Your task to perform on an android device: Open location settings Image 0: 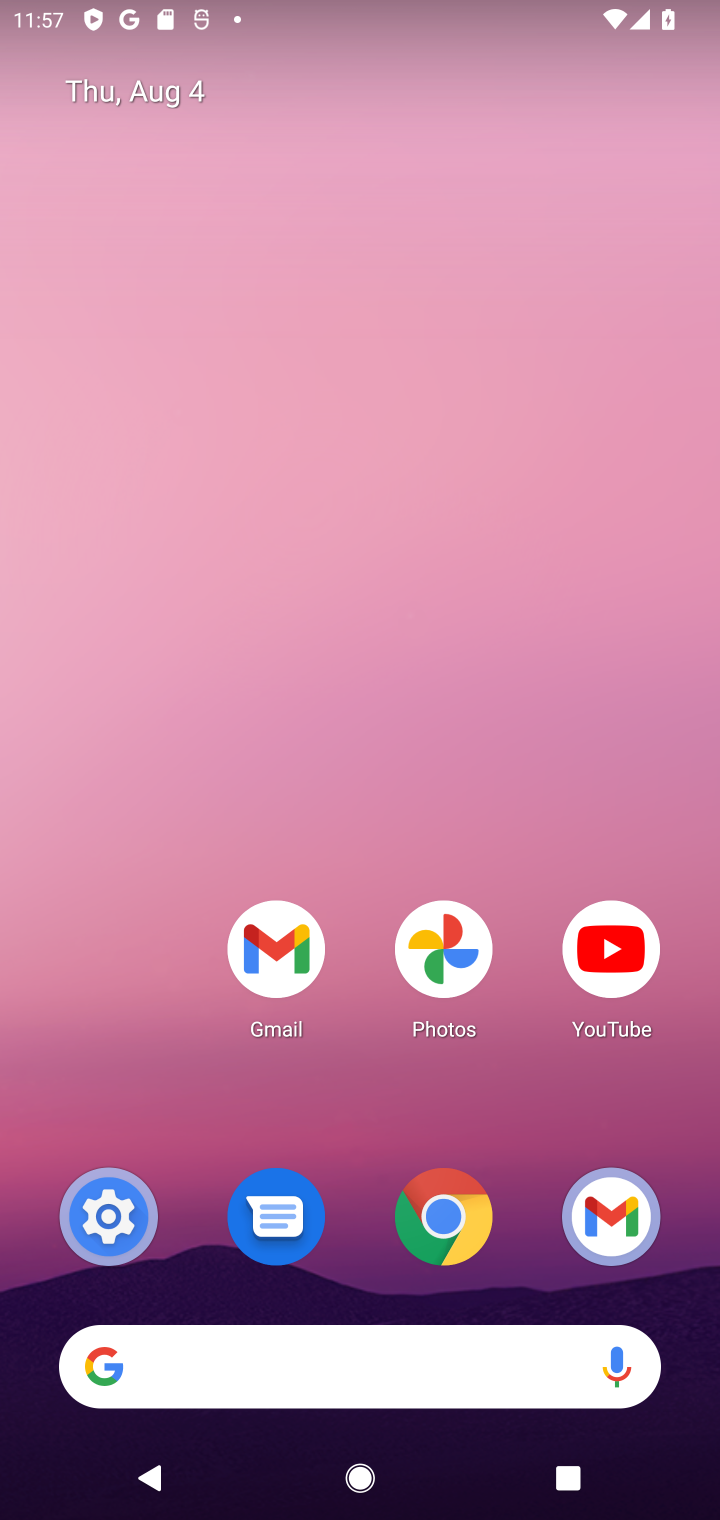
Step 0: click (112, 1219)
Your task to perform on an android device: Open location settings Image 1: 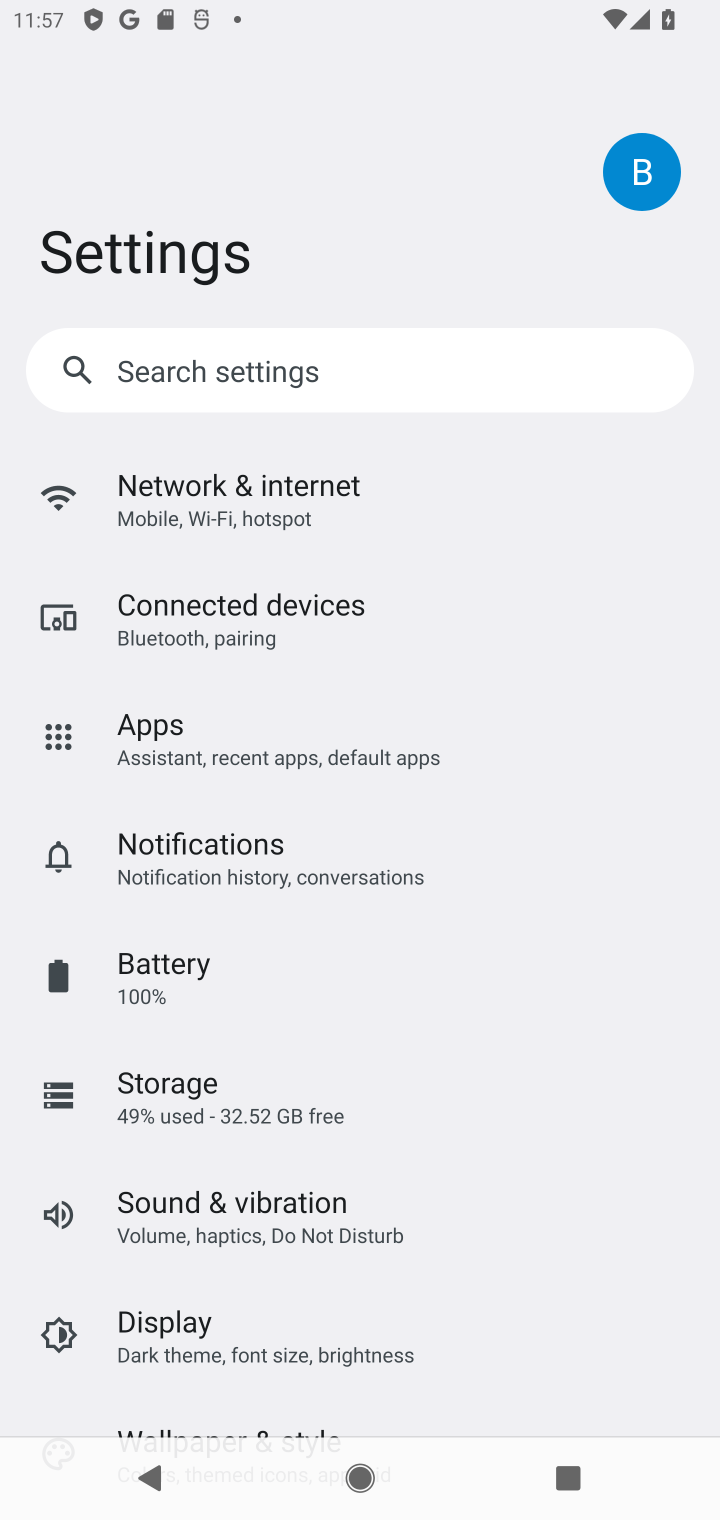
Step 1: drag from (421, 1048) to (512, 488)
Your task to perform on an android device: Open location settings Image 2: 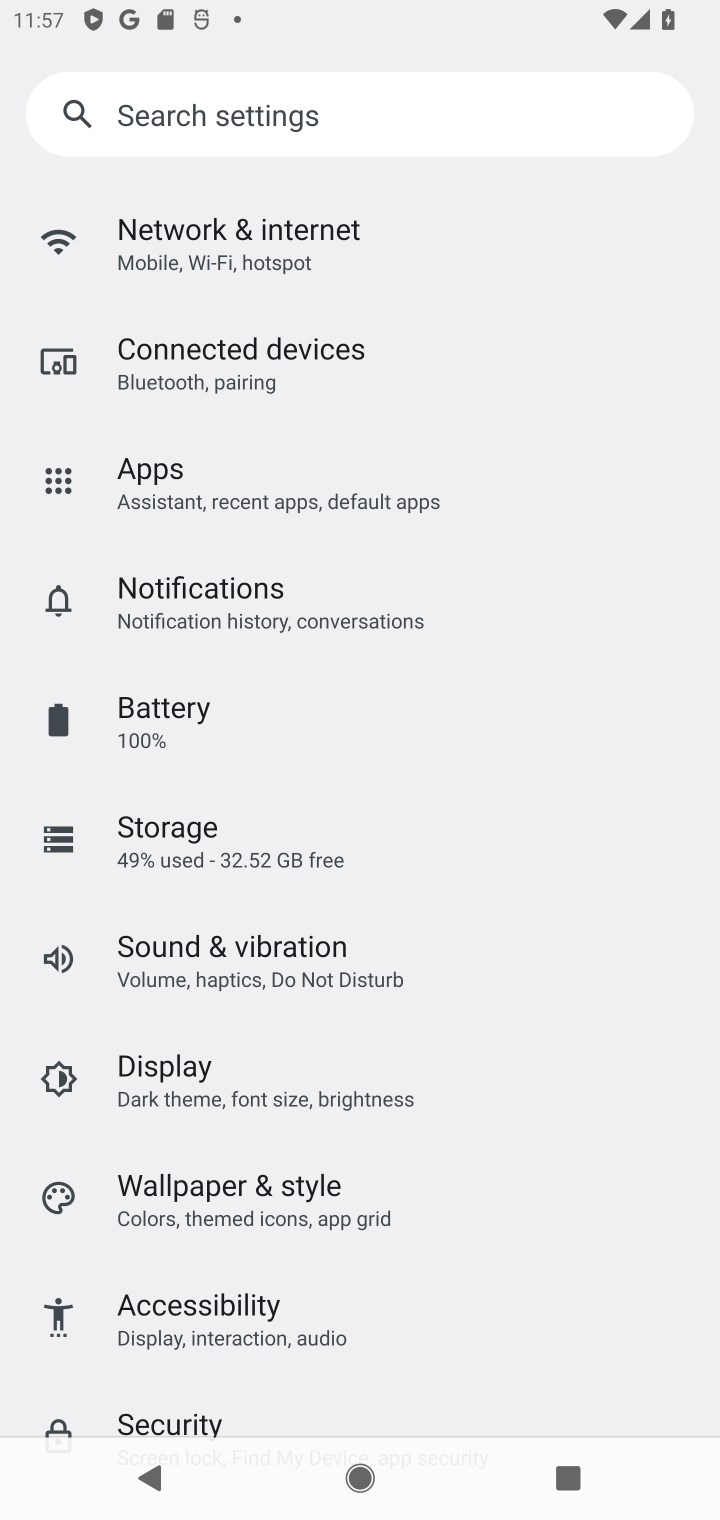
Step 2: drag from (355, 1326) to (515, 491)
Your task to perform on an android device: Open location settings Image 3: 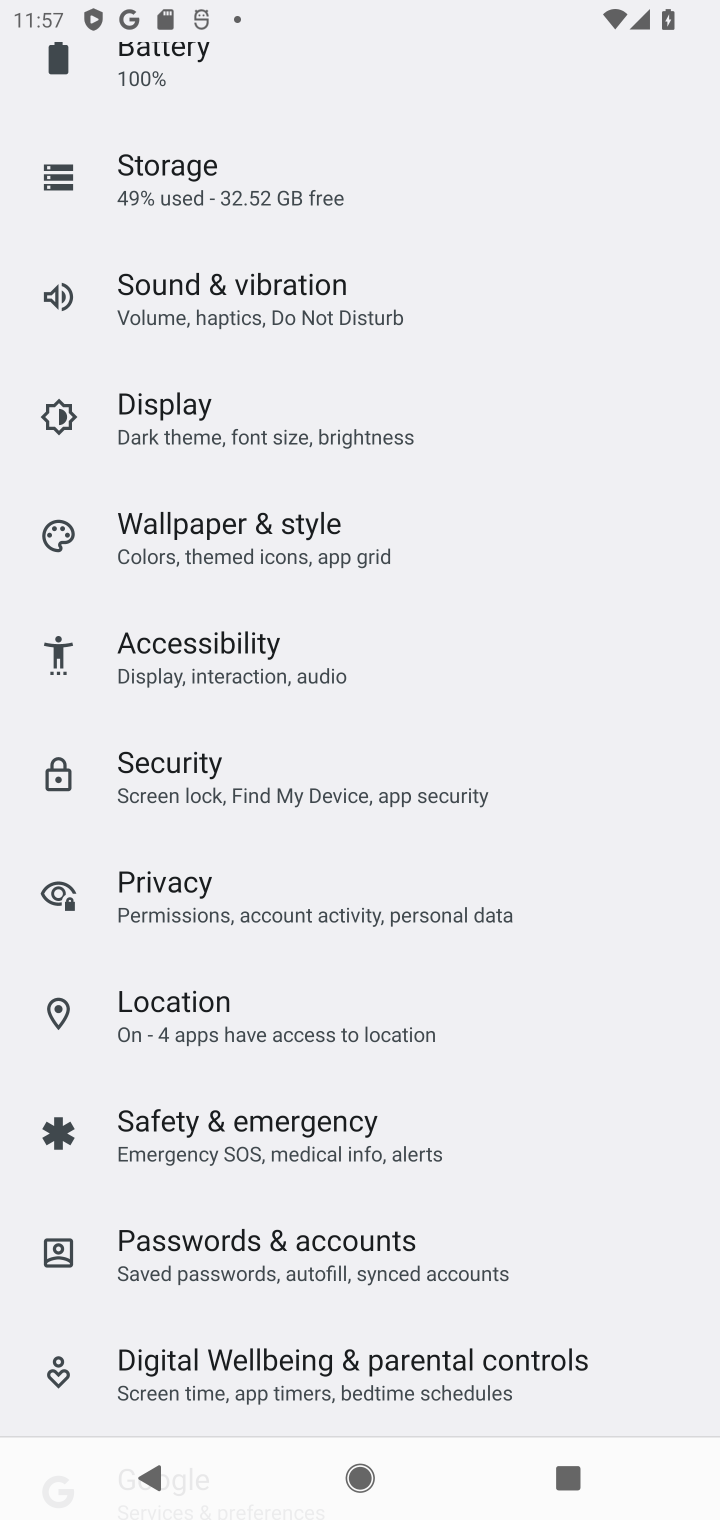
Step 3: click (266, 1015)
Your task to perform on an android device: Open location settings Image 4: 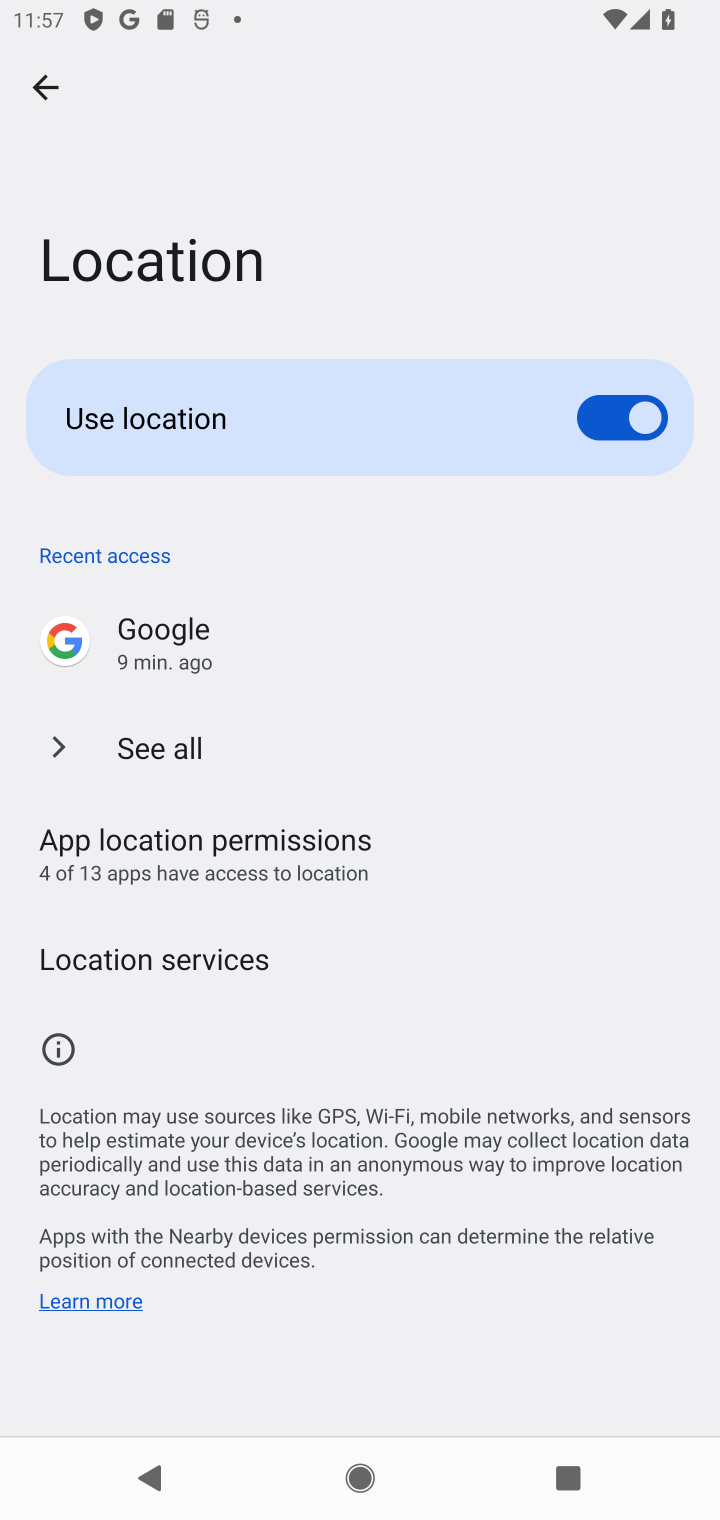
Step 4: task complete